Your task to perform on an android device: Go to ESPN.com Image 0: 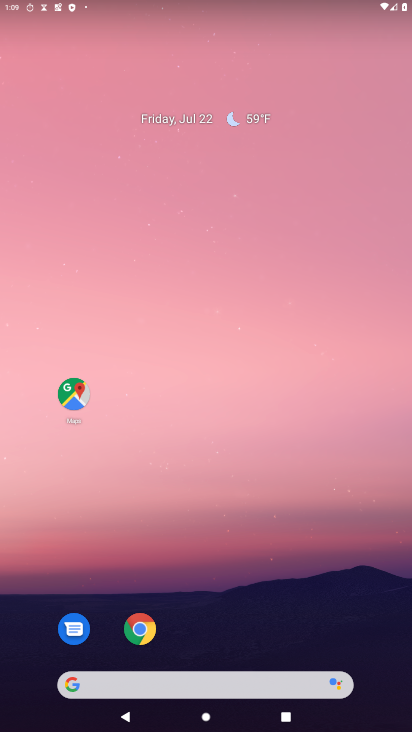
Step 0: drag from (268, 619) to (281, 90)
Your task to perform on an android device: Go to ESPN.com Image 1: 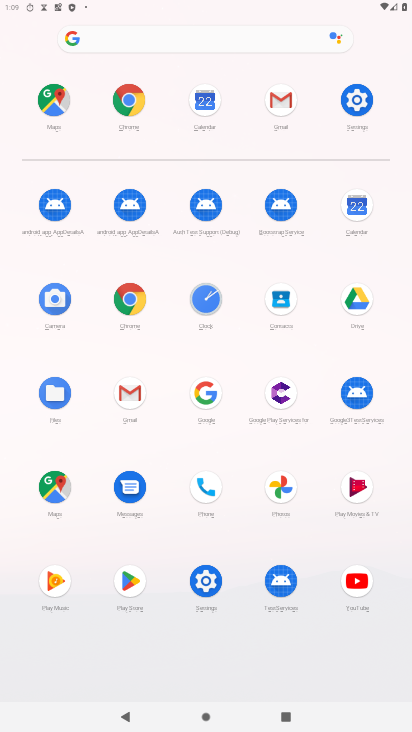
Step 1: click (121, 302)
Your task to perform on an android device: Go to ESPN.com Image 2: 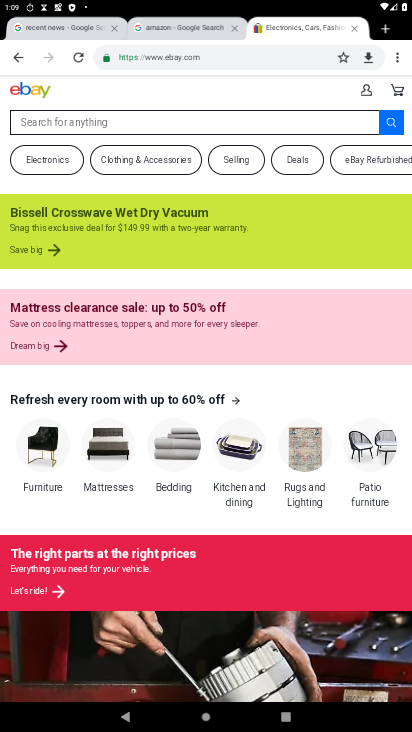
Step 2: drag from (402, 56) to (324, 58)
Your task to perform on an android device: Go to ESPN.com Image 3: 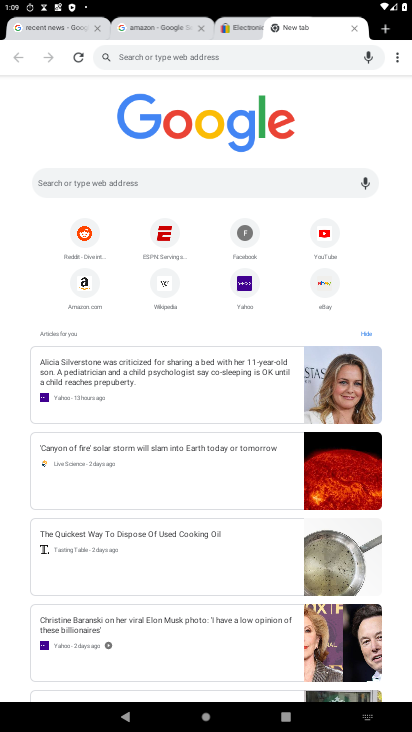
Step 3: click (160, 231)
Your task to perform on an android device: Go to ESPN.com Image 4: 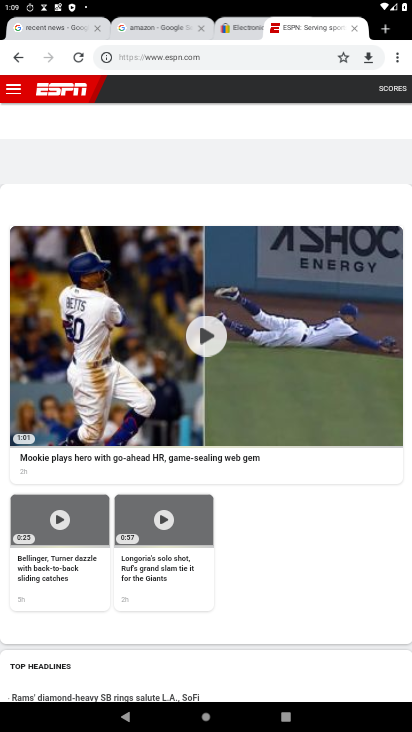
Step 4: task complete